Your task to perform on an android device: add a label to a message in the gmail app Image 0: 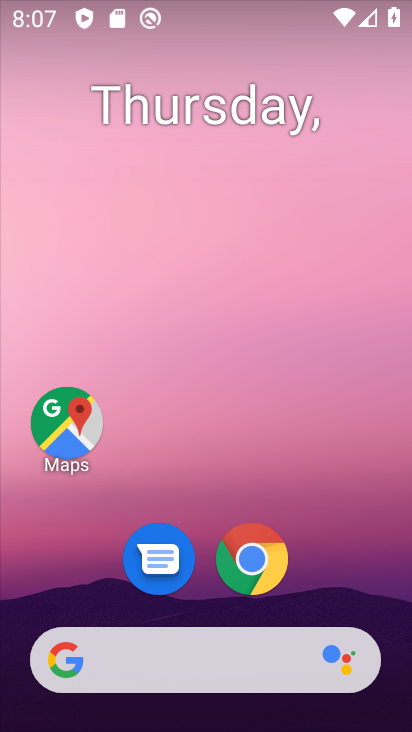
Step 0: drag from (234, 665) to (177, 136)
Your task to perform on an android device: add a label to a message in the gmail app Image 1: 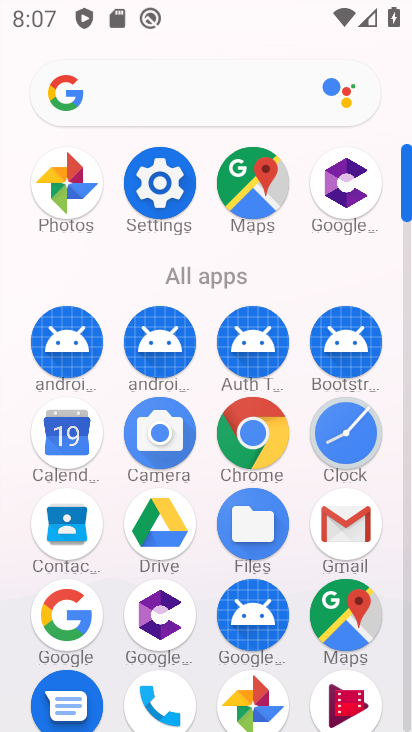
Step 1: click (333, 519)
Your task to perform on an android device: add a label to a message in the gmail app Image 2: 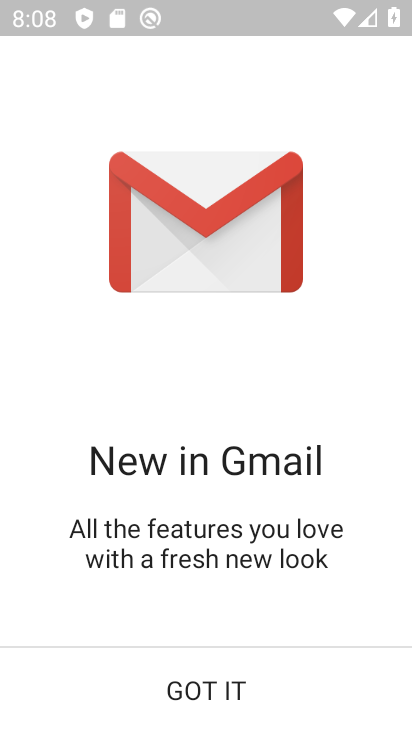
Step 2: click (214, 676)
Your task to perform on an android device: add a label to a message in the gmail app Image 3: 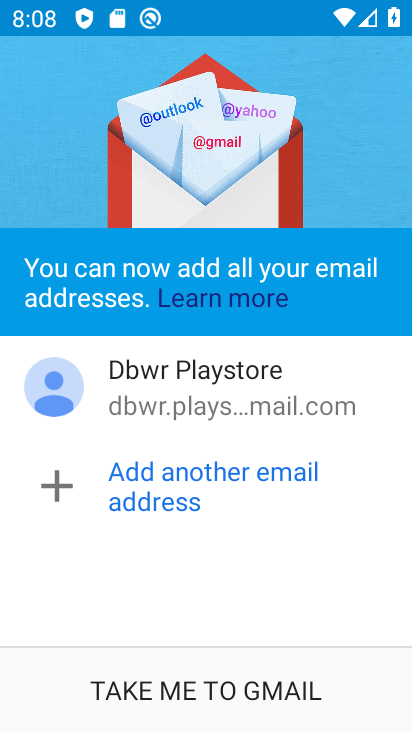
Step 3: click (214, 676)
Your task to perform on an android device: add a label to a message in the gmail app Image 4: 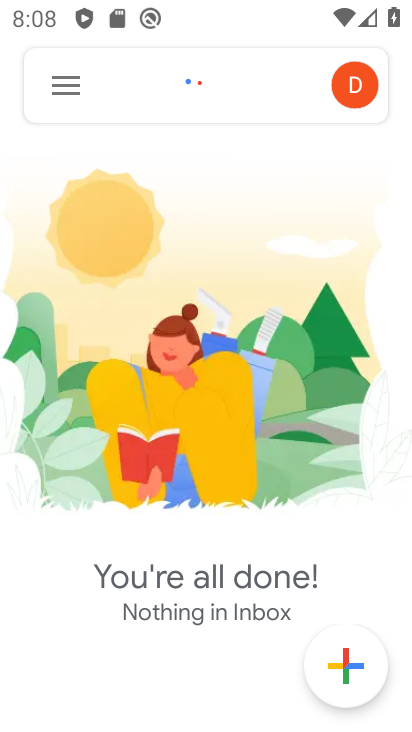
Step 4: click (60, 84)
Your task to perform on an android device: add a label to a message in the gmail app Image 5: 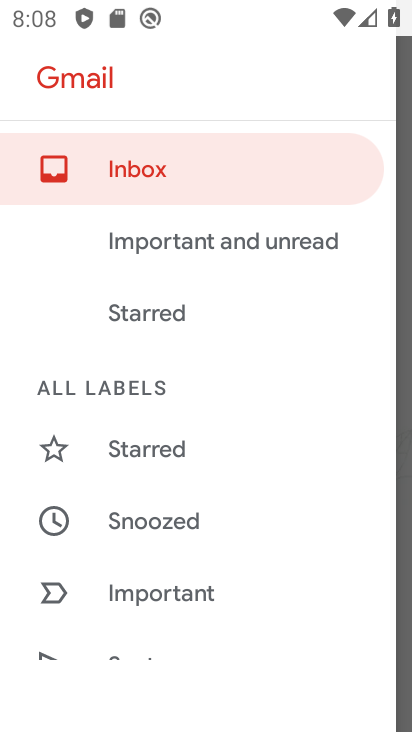
Step 5: drag from (189, 542) to (199, 14)
Your task to perform on an android device: add a label to a message in the gmail app Image 6: 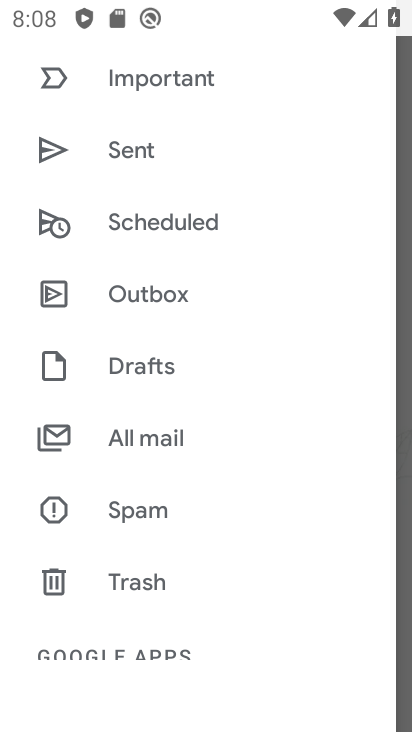
Step 6: click (193, 425)
Your task to perform on an android device: add a label to a message in the gmail app Image 7: 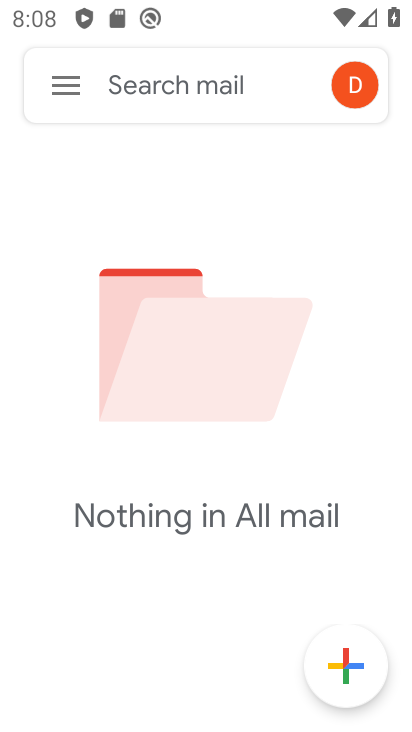
Step 7: task complete